Your task to perform on an android device: Open display settings Image 0: 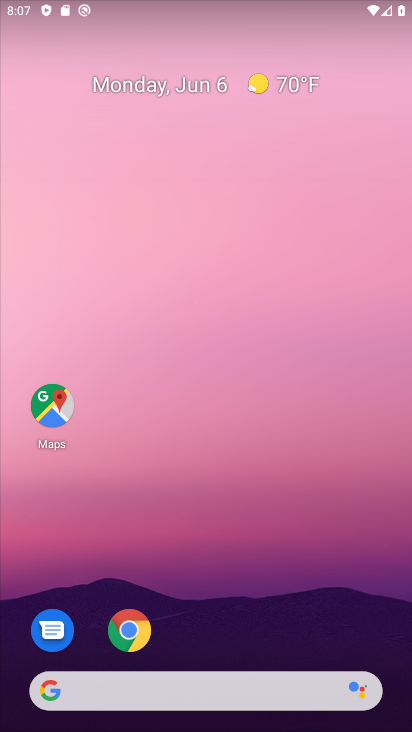
Step 0: drag from (269, 565) to (304, 190)
Your task to perform on an android device: Open display settings Image 1: 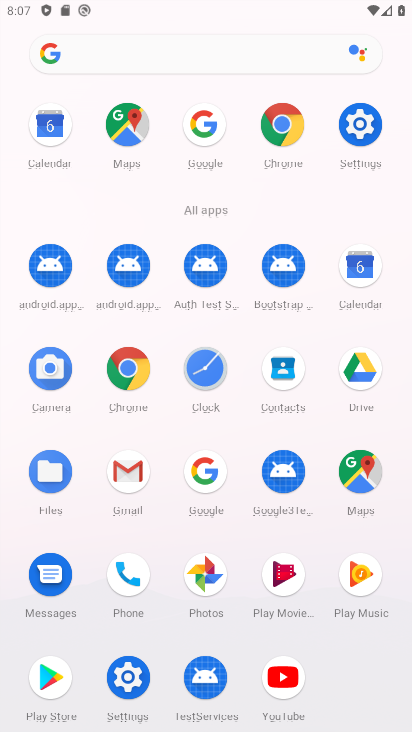
Step 1: click (372, 129)
Your task to perform on an android device: Open display settings Image 2: 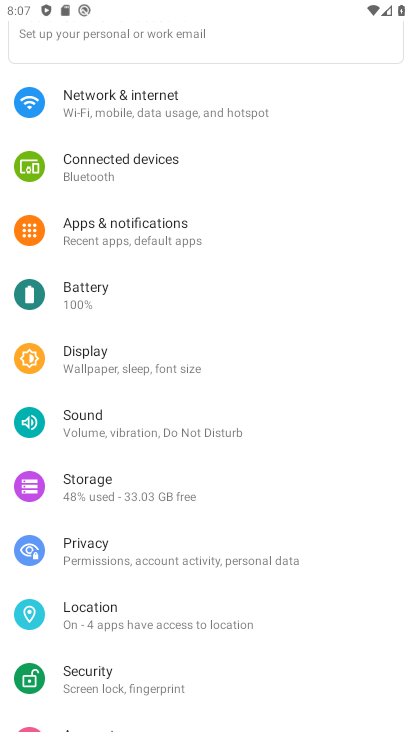
Step 2: click (159, 351)
Your task to perform on an android device: Open display settings Image 3: 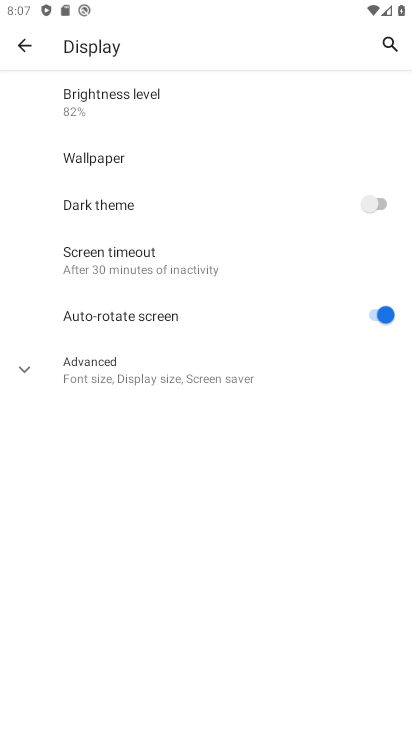
Step 3: task complete